Your task to perform on an android device: toggle translation in the chrome app Image 0: 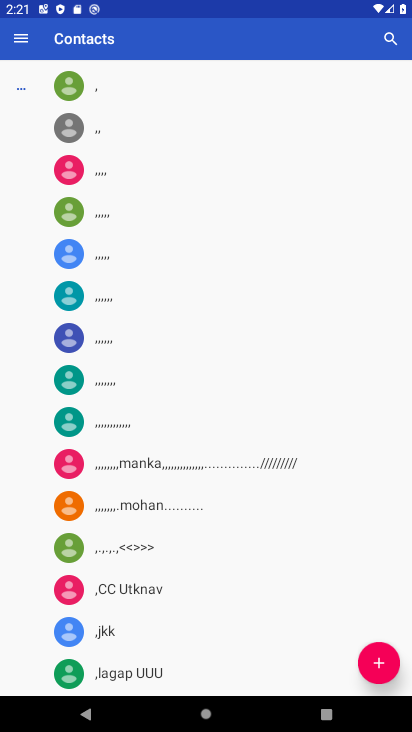
Step 0: press home button
Your task to perform on an android device: toggle translation in the chrome app Image 1: 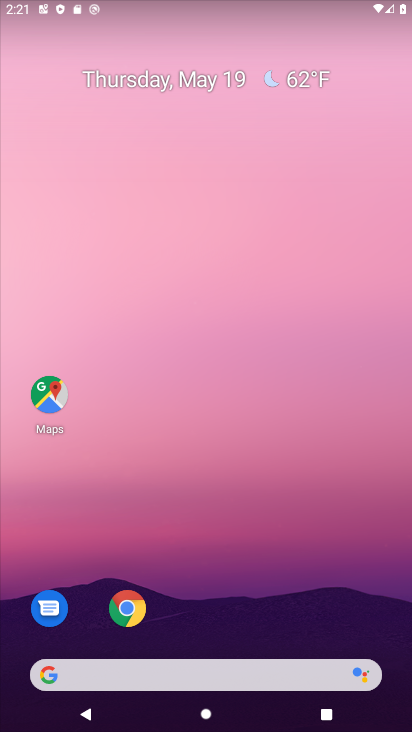
Step 1: click (132, 607)
Your task to perform on an android device: toggle translation in the chrome app Image 2: 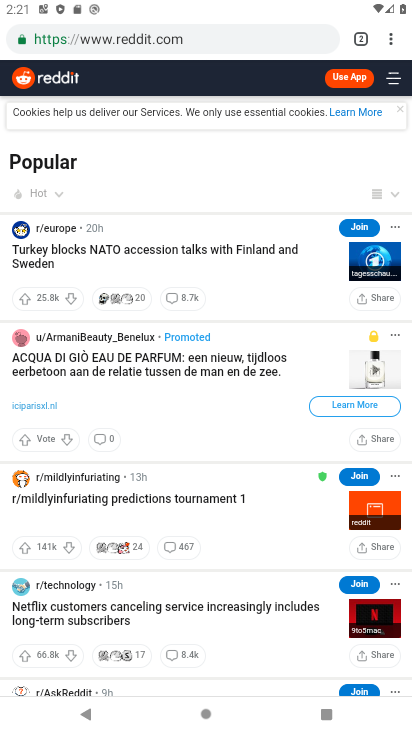
Step 2: click (237, 40)
Your task to perform on an android device: toggle translation in the chrome app Image 3: 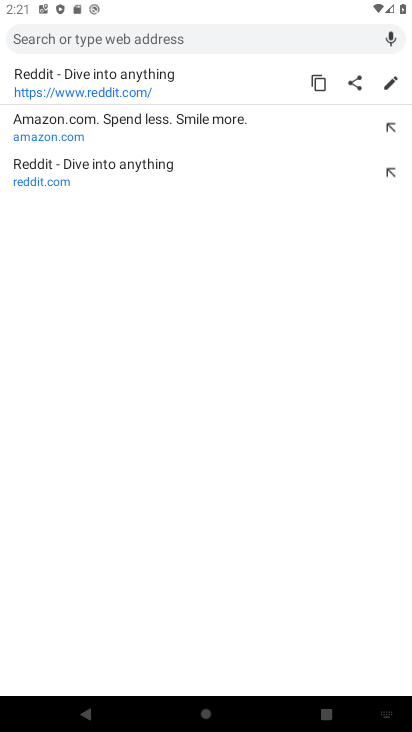
Step 3: click (73, 719)
Your task to perform on an android device: toggle translation in the chrome app Image 4: 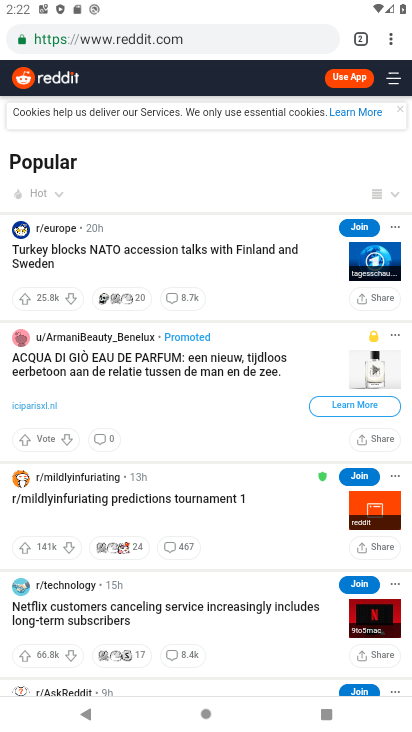
Step 4: click (393, 50)
Your task to perform on an android device: toggle translation in the chrome app Image 5: 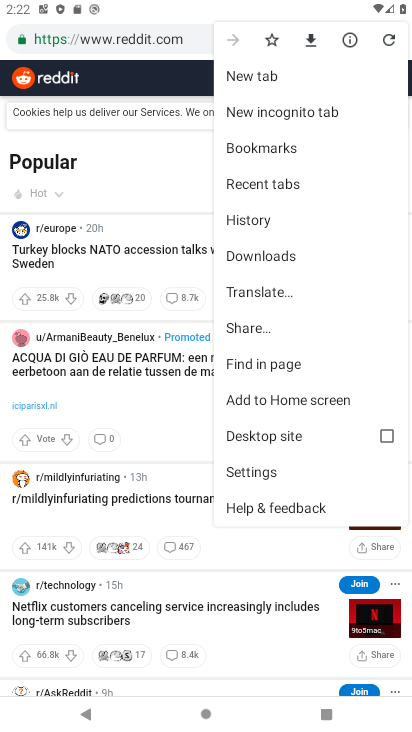
Step 5: click (266, 470)
Your task to perform on an android device: toggle translation in the chrome app Image 6: 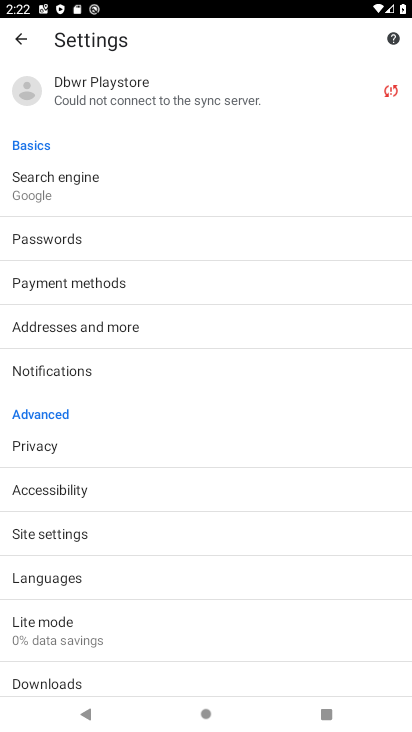
Step 6: click (160, 557)
Your task to perform on an android device: toggle translation in the chrome app Image 7: 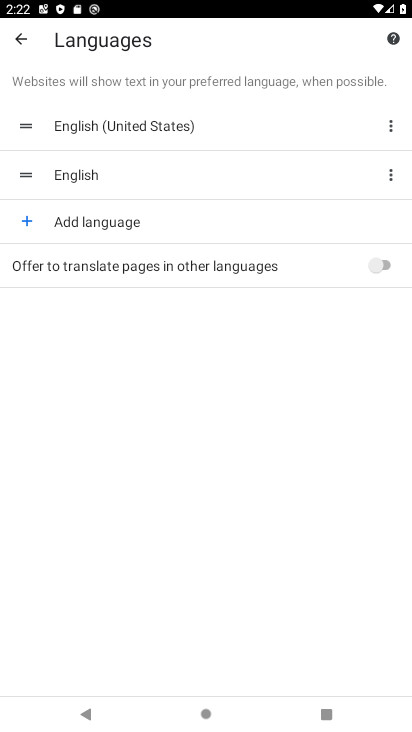
Step 7: click (360, 252)
Your task to perform on an android device: toggle translation in the chrome app Image 8: 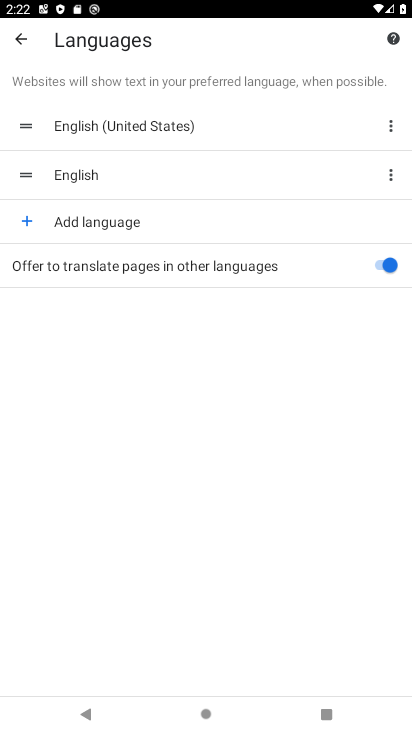
Step 8: task complete